Your task to perform on an android device: What is the capital of China? Image 0: 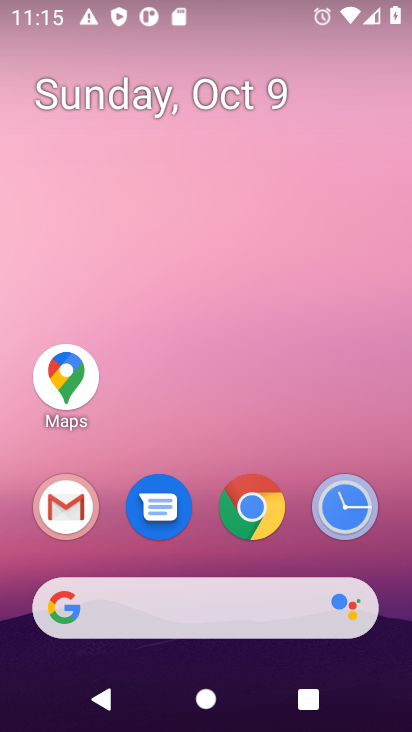
Step 0: press home button
Your task to perform on an android device: What is the capital of China? Image 1: 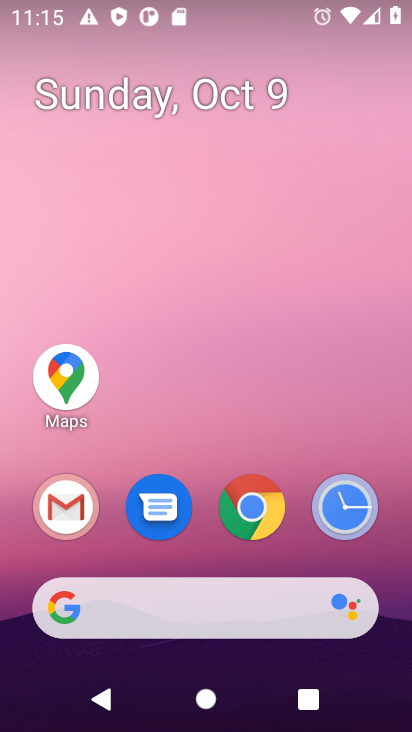
Step 1: click (231, 601)
Your task to perform on an android device: What is the capital of China? Image 2: 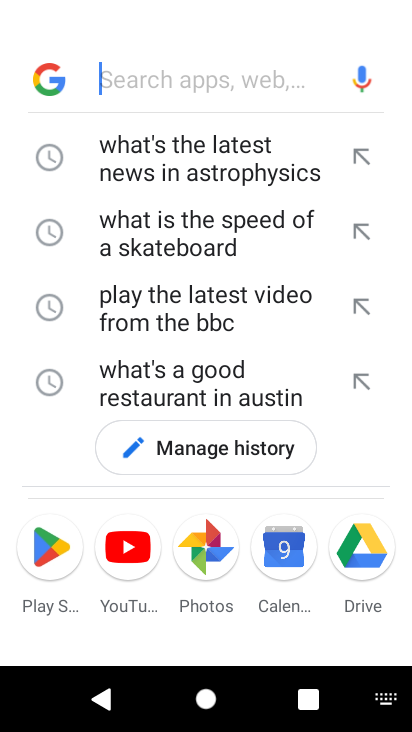
Step 2: type "What is the capital of China"
Your task to perform on an android device: What is the capital of China? Image 3: 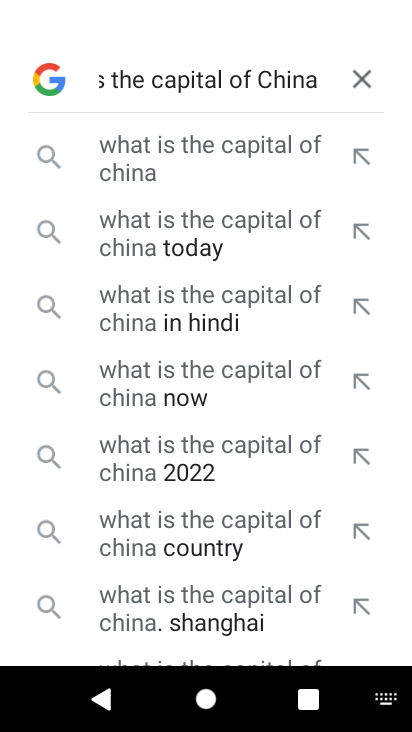
Step 3: press enter
Your task to perform on an android device: What is the capital of China? Image 4: 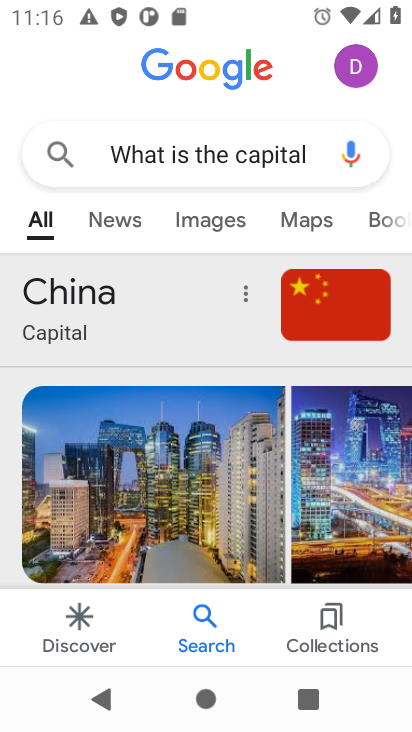
Step 4: task complete